Your task to perform on an android device: turn on wifi Image 0: 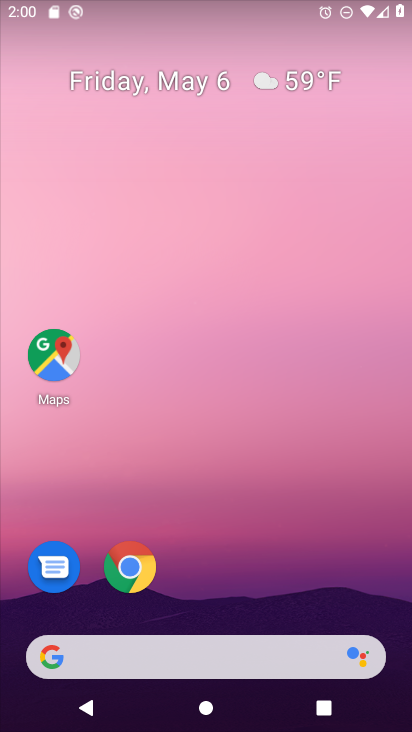
Step 0: drag from (305, 11) to (293, 238)
Your task to perform on an android device: turn on wifi Image 1: 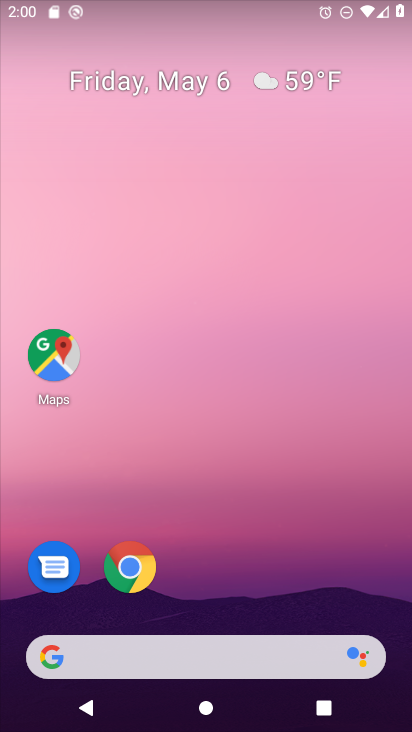
Step 1: task complete